Your task to perform on an android device: change notification settings in the gmail app Image 0: 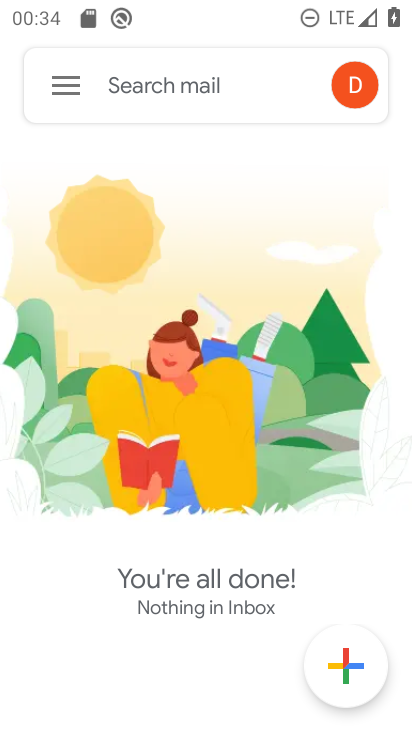
Step 0: click (65, 83)
Your task to perform on an android device: change notification settings in the gmail app Image 1: 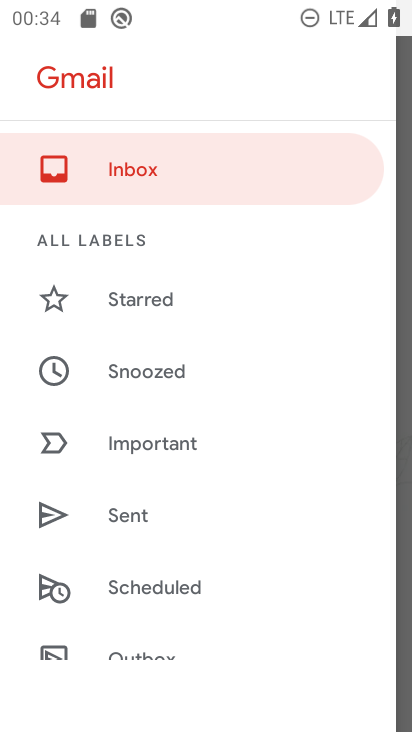
Step 1: drag from (234, 508) to (218, 142)
Your task to perform on an android device: change notification settings in the gmail app Image 2: 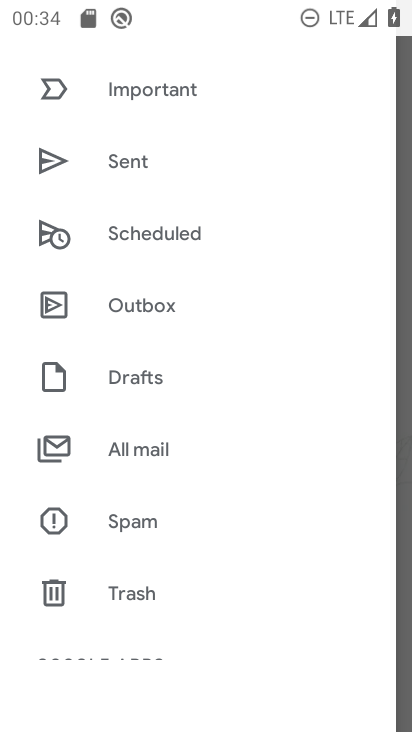
Step 2: drag from (188, 533) to (235, 131)
Your task to perform on an android device: change notification settings in the gmail app Image 3: 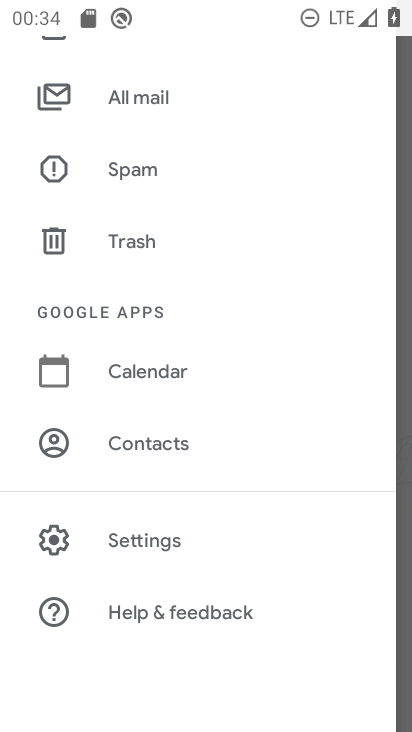
Step 3: click (143, 537)
Your task to perform on an android device: change notification settings in the gmail app Image 4: 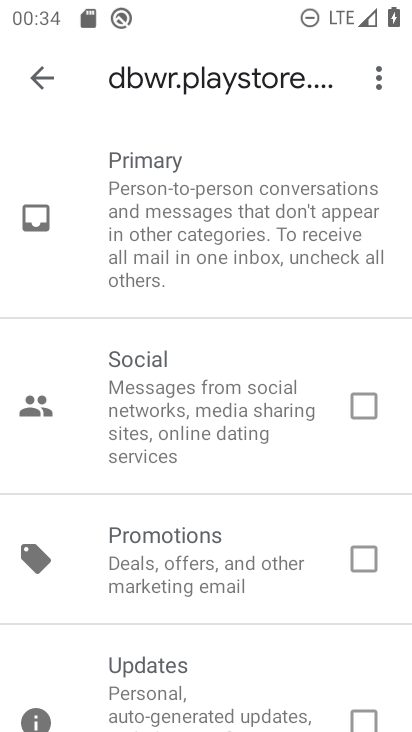
Step 4: press back button
Your task to perform on an android device: change notification settings in the gmail app Image 5: 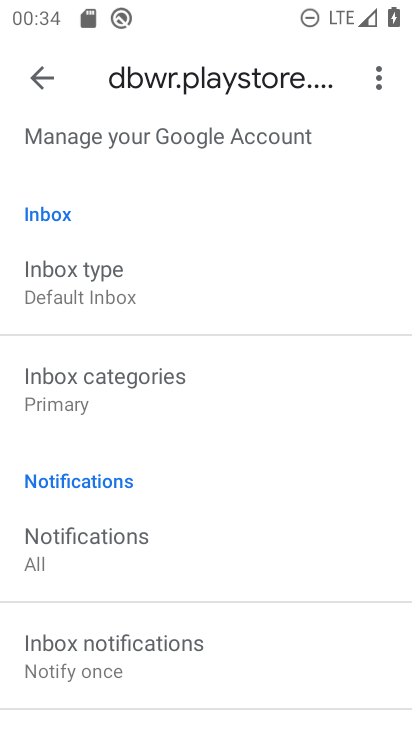
Step 5: drag from (233, 560) to (252, 183)
Your task to perform on an android device: change notification settings in the gmail app Image 6: 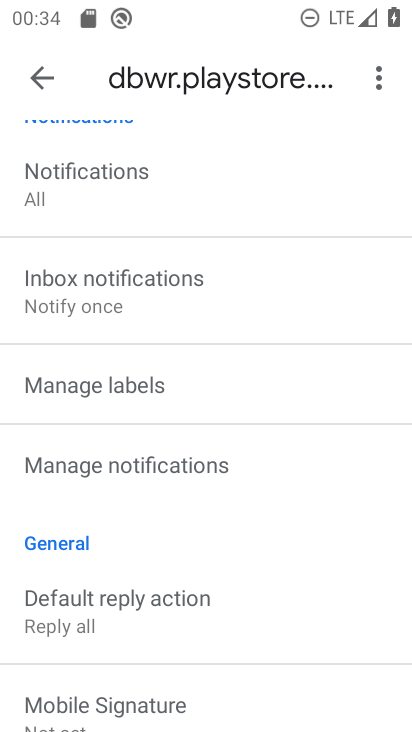
Step 6: click (151, 448)
Your task to perform on an android device: change notification settings in the gmail app Image 7: 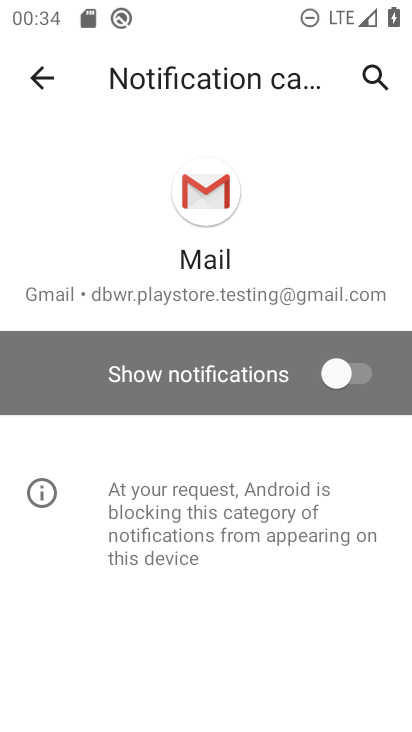
Step 7: click (356, 370)
Your task to perform on an android device: change notification settings in the gmail app Image 8: 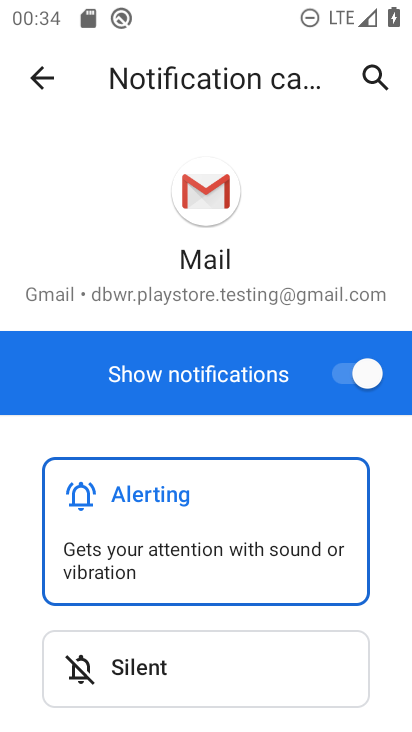
Step 8: task complete